Your task to perform on an android device: Open eBay Image 0: 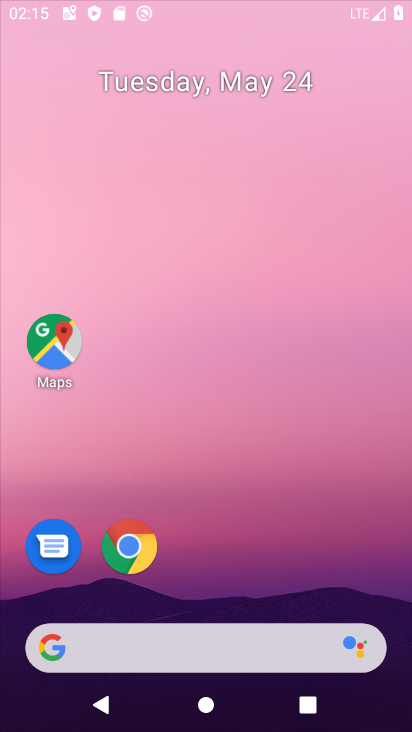
Step 0: drag from (383, 61) to (389, 2)
Your task to perform on an android device: Open eBay Image 1: 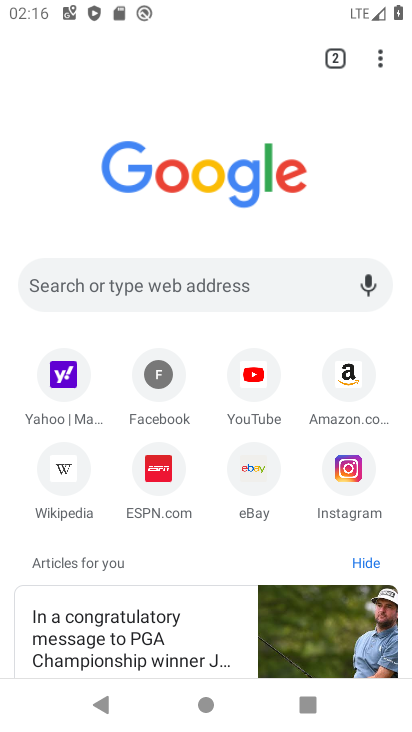
Step 1: click (255, 469)
Your task to perform on an android device: Open eBay Image 2: 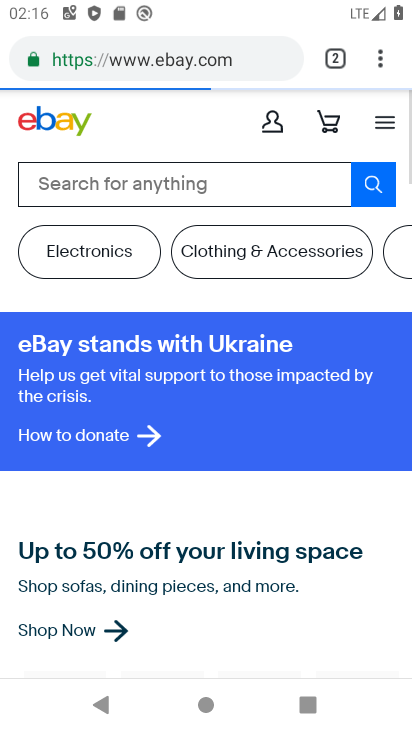
Step 2: task complete